Your task to perform on an android device: delete the emails in spam in the gmail app Image 0: 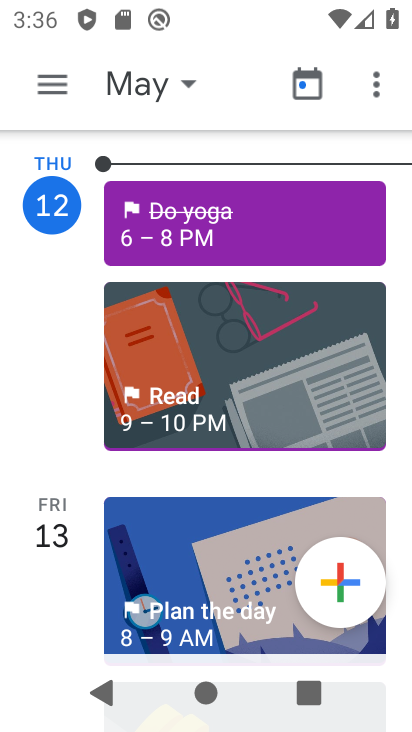
Step 0: press home button
Your task to perform on an android device: delete the emails in spam in the gmail app Image 1: 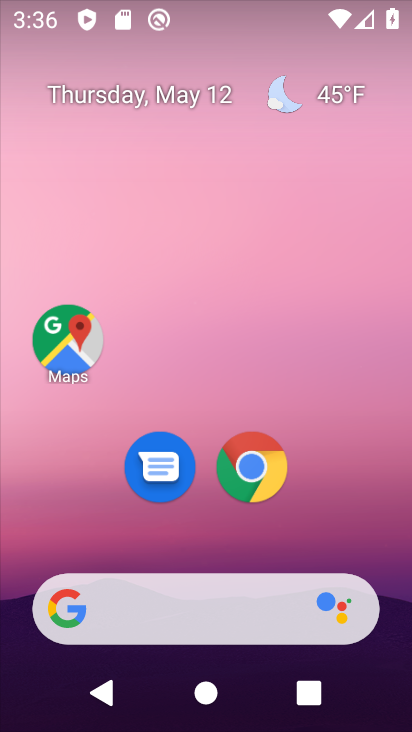
Step 1: drag from (174, 519) to (268, 80)
Your task to perform on an android device: delete the emails in spam in the gmail app Image 2: 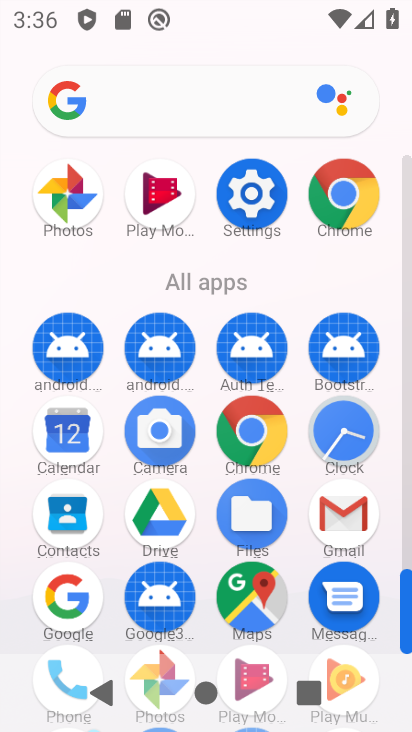
Step 2: click (354, 508)
Your task to perform on an android device: delete the emails in spam in the gmail app Image 3: 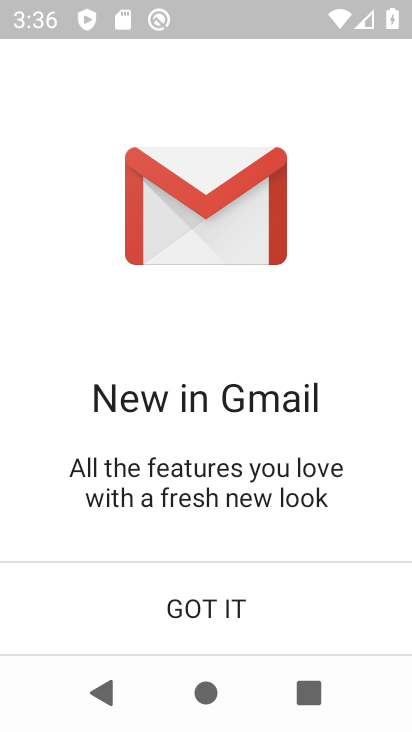
Step 3: click (273, 623)
Your task to perform on an android device: delete the emails in spam in the gmail app Image 4: 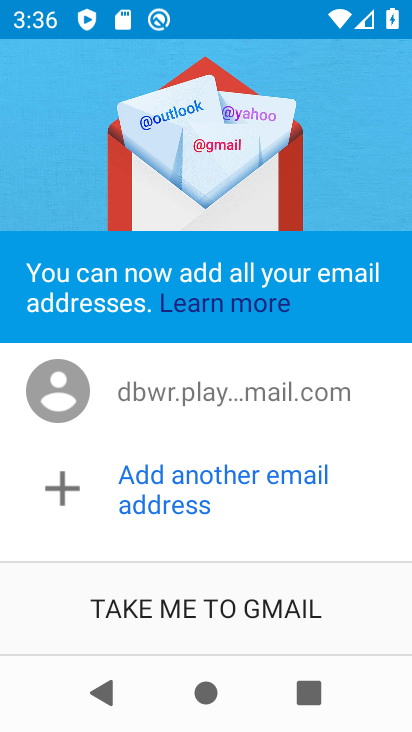
Step 4: click (234, 616)
Your task to perform on an android device: delete the emails in spam in the gmail app Image 5: 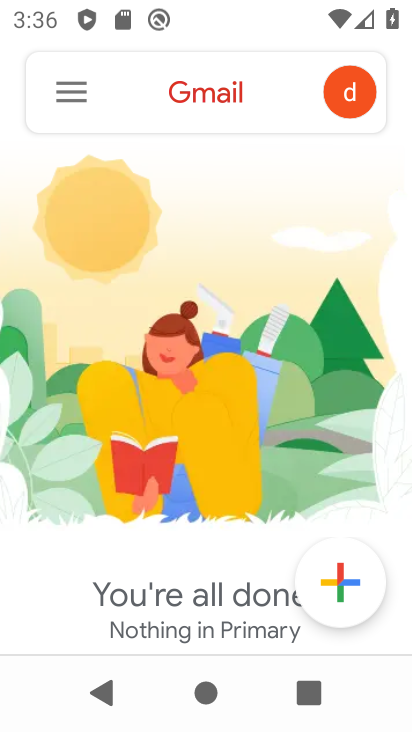
Step 5: click (70, 93)
Your task to perform on an android device: delete the emails in spam in the gmail app Image 6: 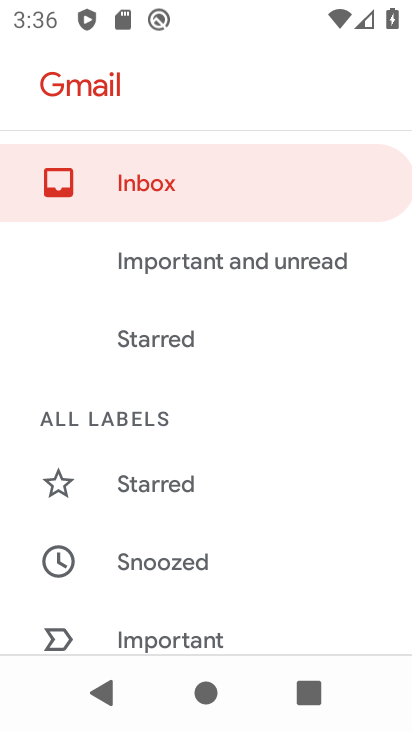
Step 6: drag from (216, 573) to (311, 322)
Your task to perform on an android device: delete the emails in spam in the gmail app Image 7: 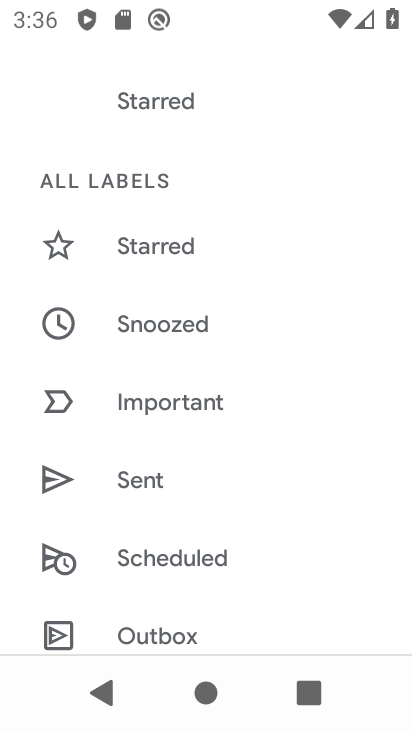
Step 7: drag from (238, 619) to (328, 305)
Your task to perform on an android device: delete the emails in spam in the gmail app Image 8: 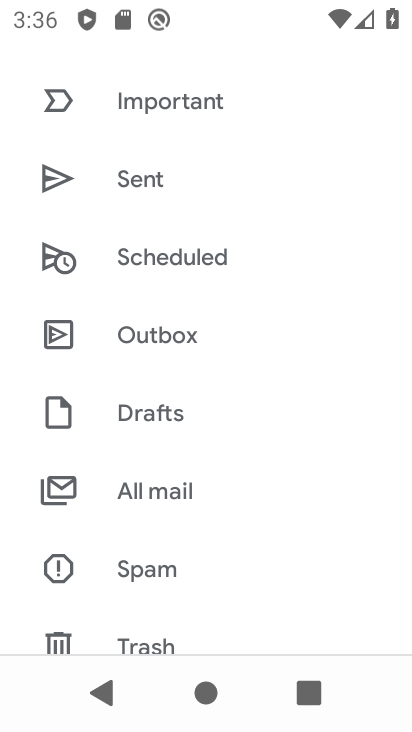
Step 8: click (211, 580)
Your task to perform on an android device: delete the emails in spam in the gmail app Image 9: 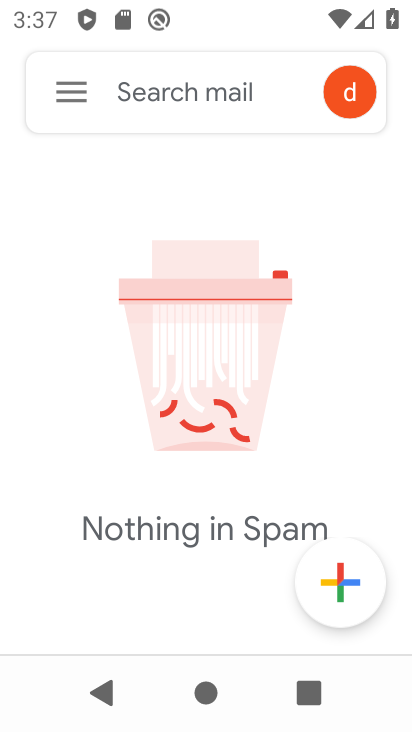
Step 9: task complete